Your task to perform on an android device: refresh tabs in the chrome app Image 0: 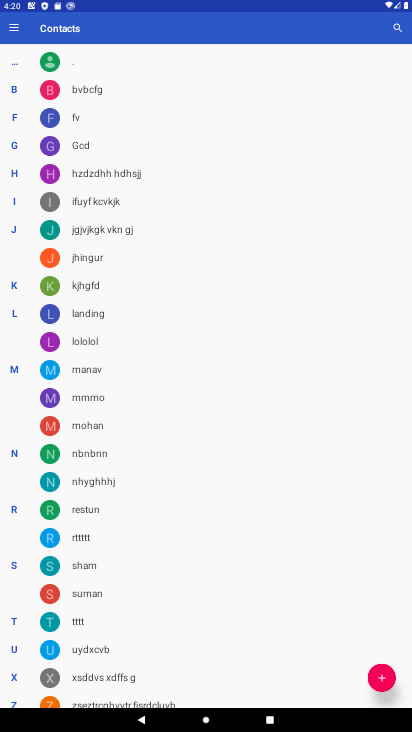
Step 0: press home button
Your task to perform on an android device: refresh tabs in the chrome app Image 1: 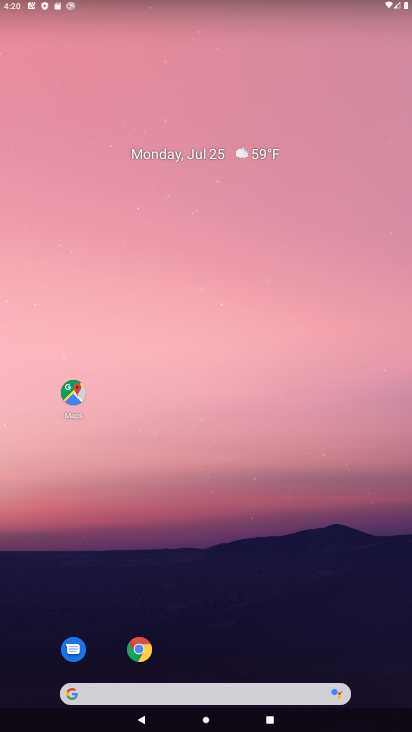
Step 1: drag from (261, 503) to (325, 0)
Your task to perform on an android device: refresh tabs in the chrome app Image 2: 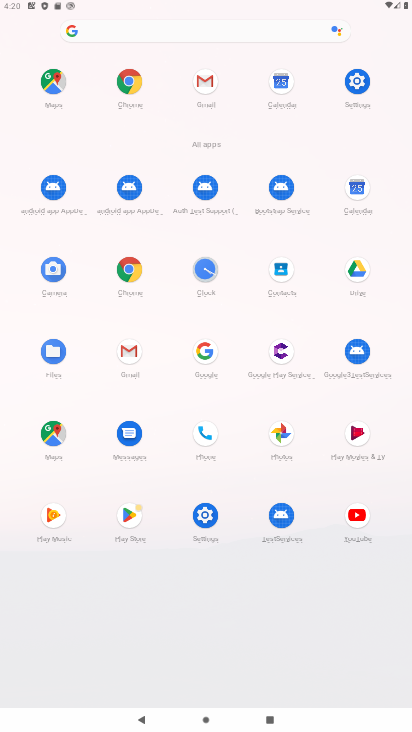
Step 2: click (144, 82)
Your task to perform on an android device: refresh tabs in the chrome app Image 3: 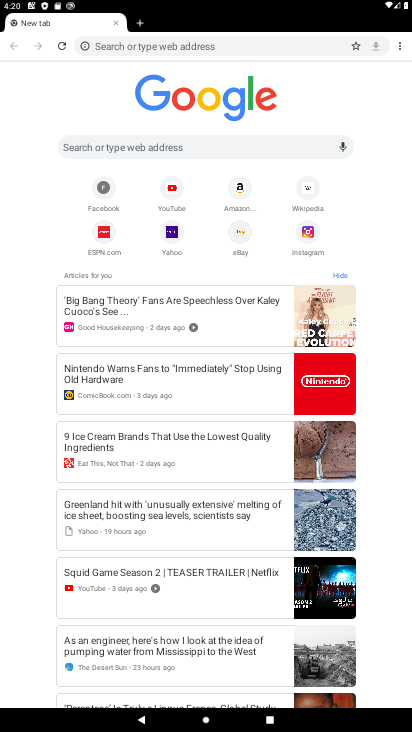
Step 3: drag from (400, 51) to (4, 117)
Your task to perform on an android device: refresh tabs in the chrome app Image 4: 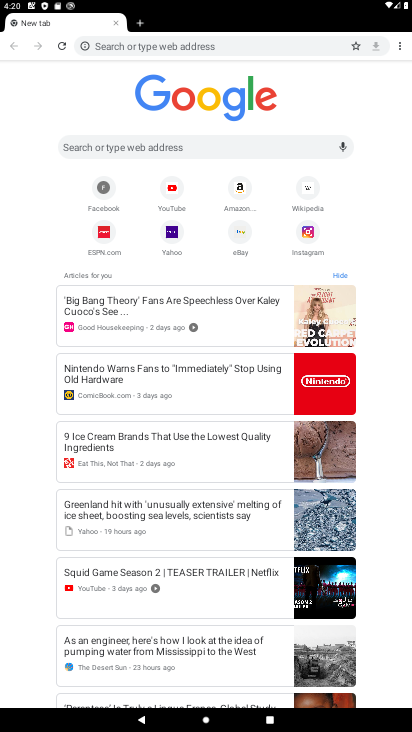
Step 4: click (402, 45)
Your task to perform on an android device: refresh tabs in the chrome app Image 5: 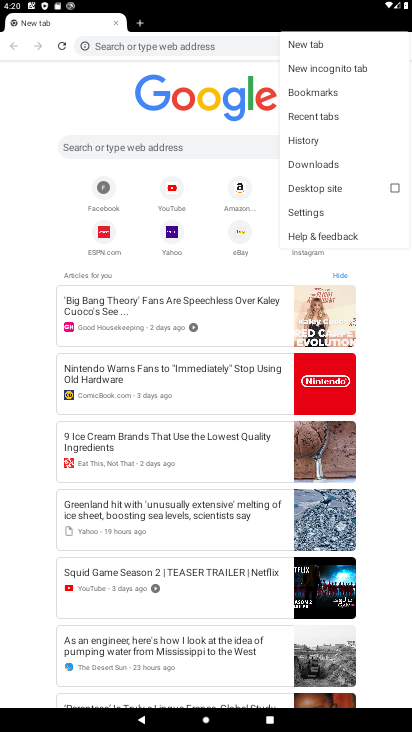
Step 5: click (7, 230)
Your task to perform on an android device: refresh tabs in the chrome app Image 6: 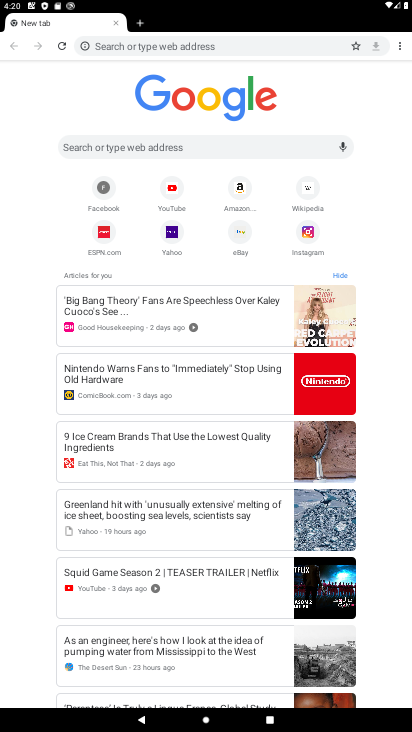
Step 6: task complete